Your task to perform on an android device: Open calendar and show me the second week of next month Image 0: 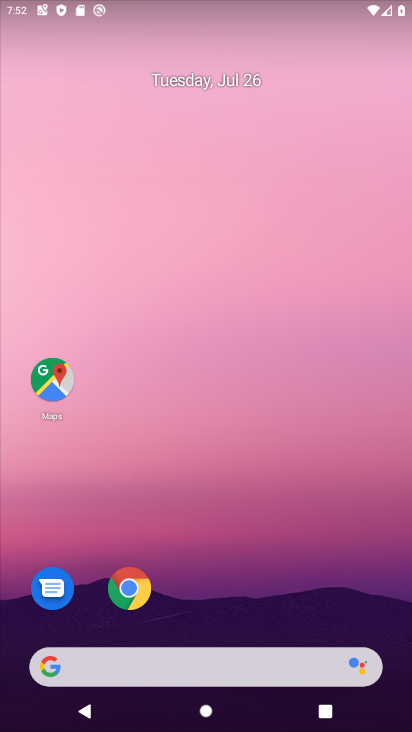
Step 0: drag from (268, 530) to (304, 204)
Your task to perform on an android device: Open calendar and show me the second week of next month Image 1: 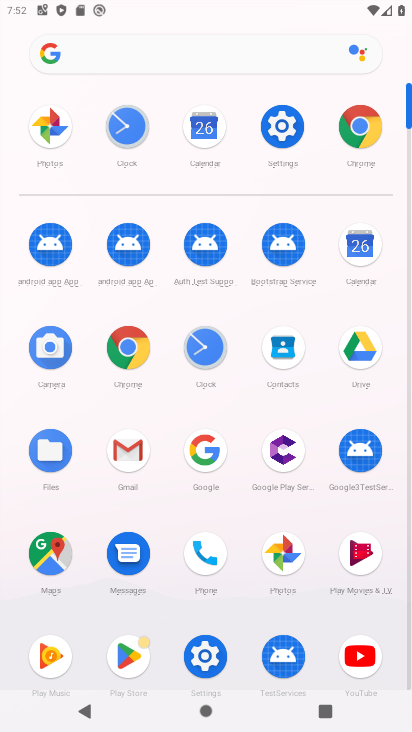
Step 1: click (362, 248)
Your task to perform on an android device: Open calendar and show me the second week of next month Image 2: 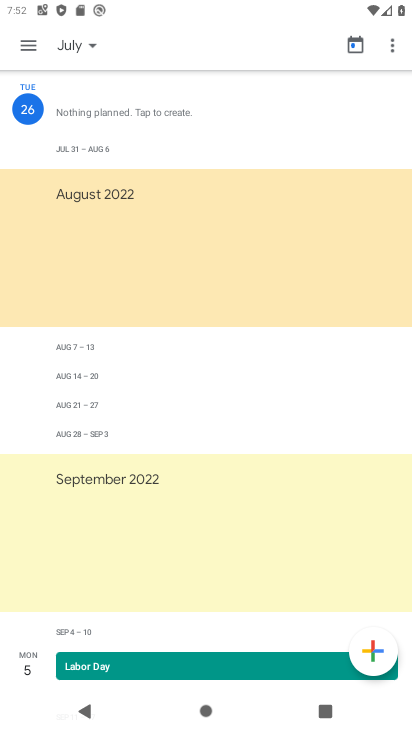
Step 2: task complete